Your task to perform on an android device: turn smart compose on in the gmail app Image 0: 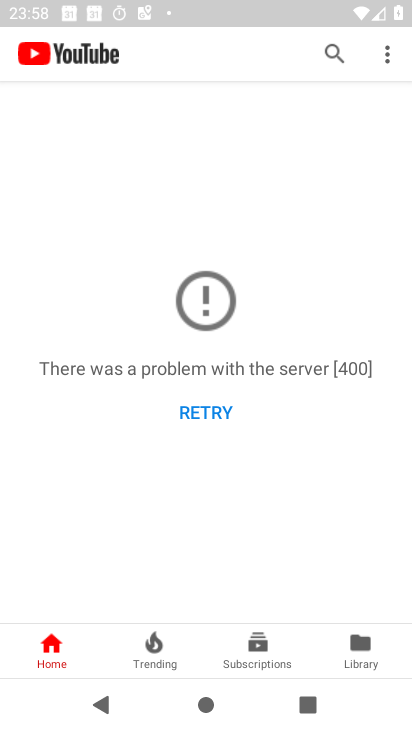
Step 0: press home button
Your task to perform on an android device: turn smart compose on in the gmail app Image 1: 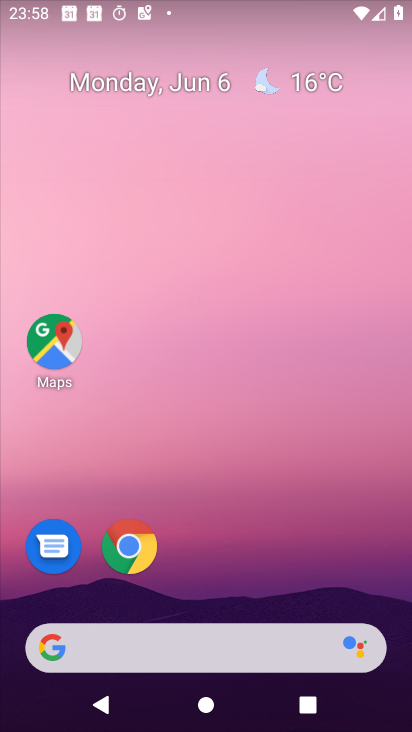
Step 1: drag from (219, 574) to (355, 0)
Your task to perform on an android device: turn smart compose on in the gmail app Image 2: 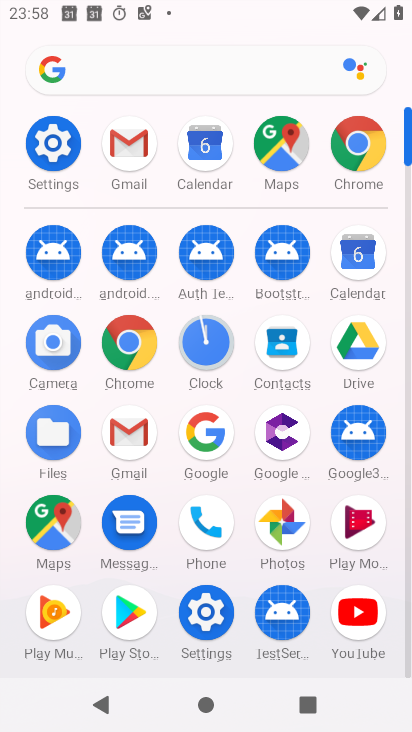
Step 2: click (130, 428)
Your task to perform on an android device: turn smart compose on in the gmail app Image 3: 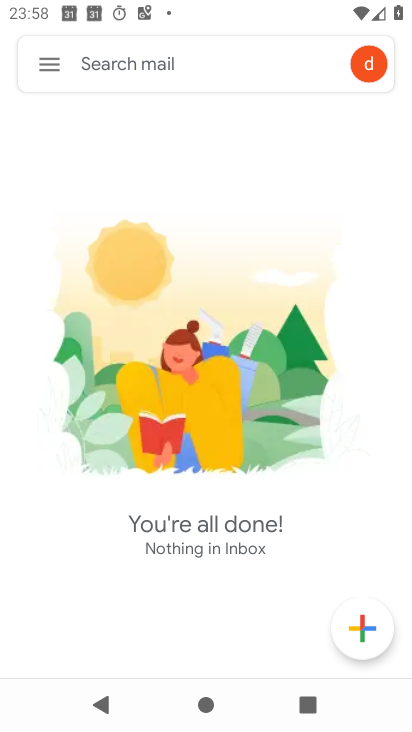
Step 3: click (43, 63)
Your task to perform on an android device: turn smart compose on in the gmail app Image 4: 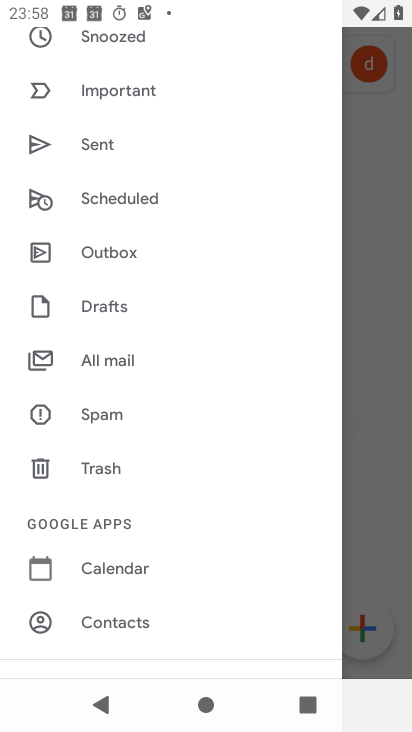
Step 4: drag from (133, 593) to (214, 190)
Your task to perform on an android device: turn smart compose on in the gmail app Image 5: 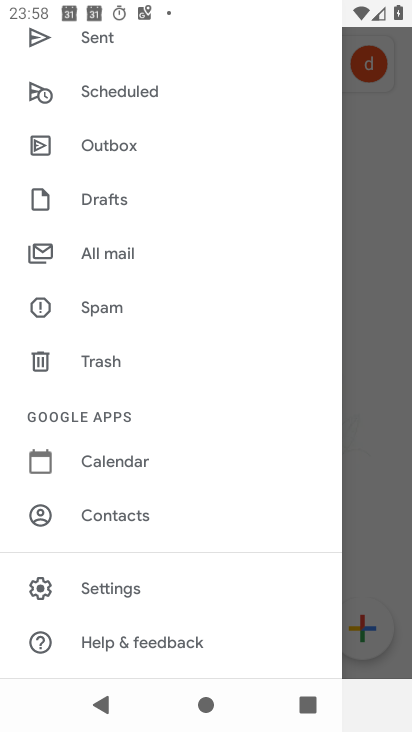
Step 5: click (108, 581)
Your task to perform on an android device: turn smart compose on in the gmail app Image 6: 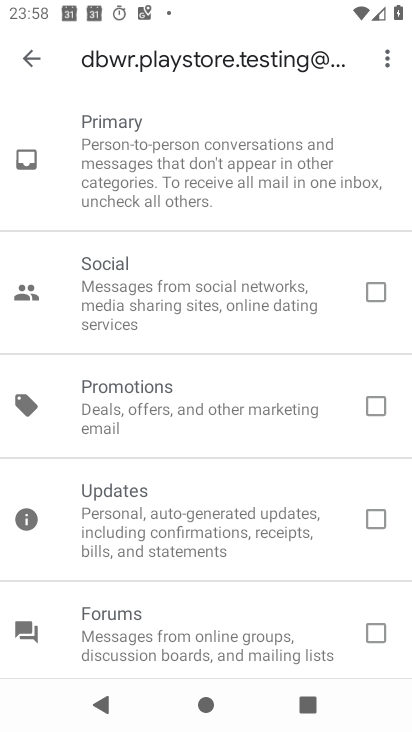
Step 6: click (41, 52)
Your task to perform on an android device: turn smart compose on in the gmail app Image 7: 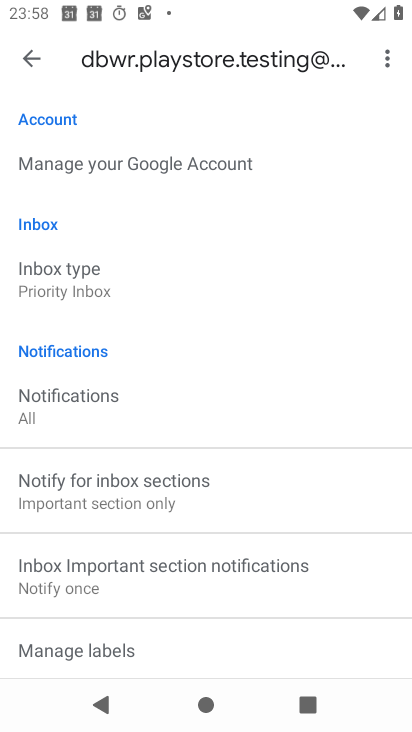
Step 7: task complete